Your task to perform on an android device: What is the news today? Image 0: 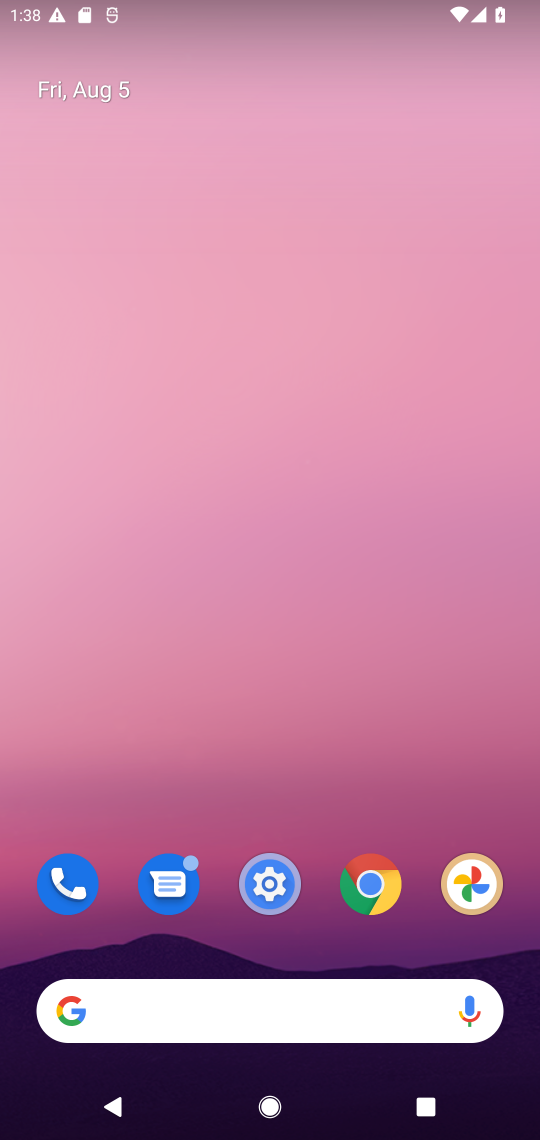
Step 0: drag from (527, 935) to (333, 0)
Your task to perform on an android device: What is the news today? Image 1: 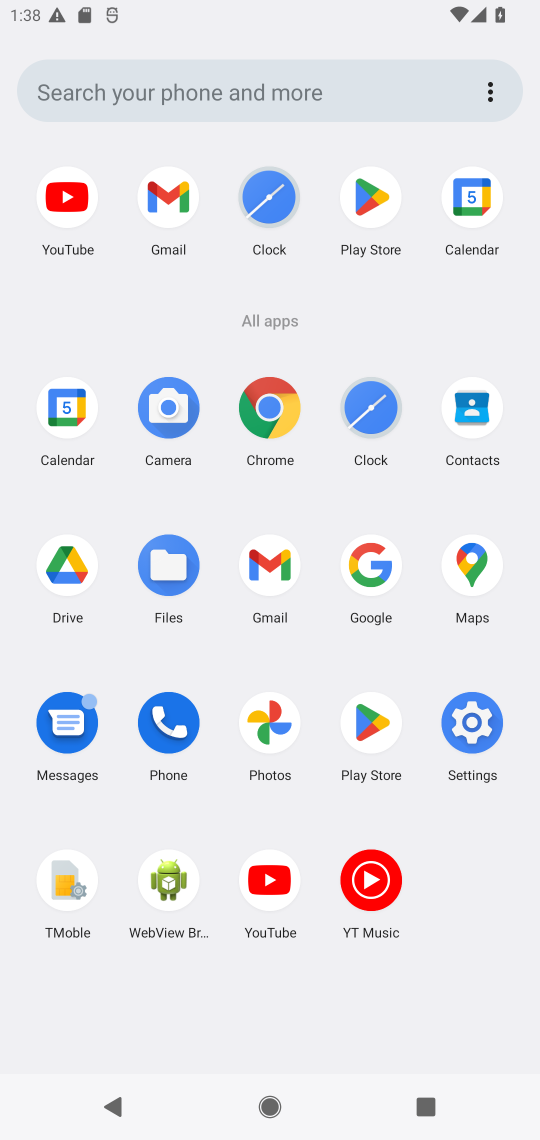
Step 1: click (381, 568)
Your task to perform on an android device: What is the news today? Image 2: 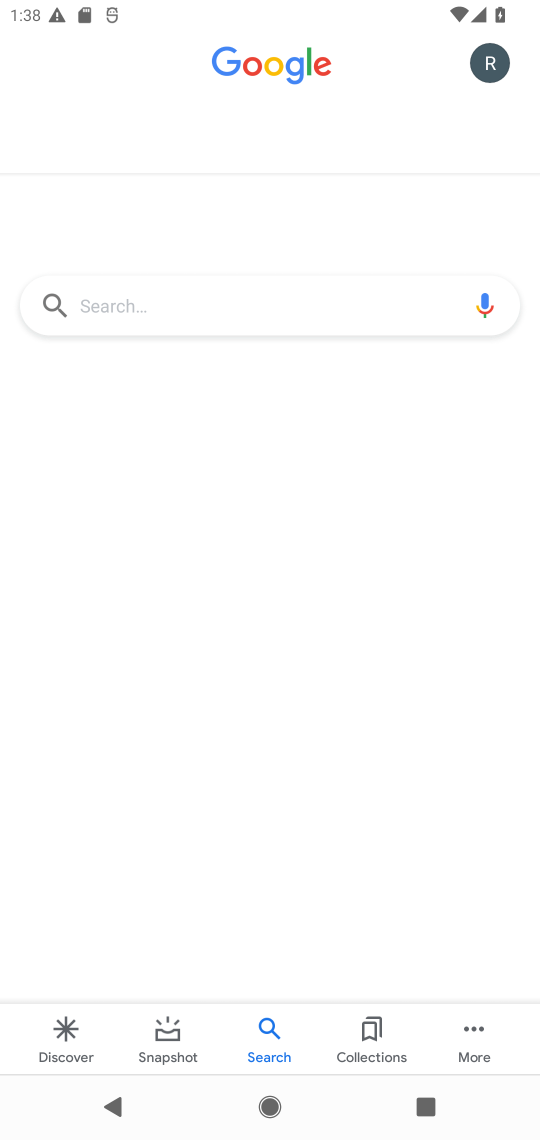
Step 2: click (219, 294)
Your task to perform on an android device: What is the news today? Image 3: 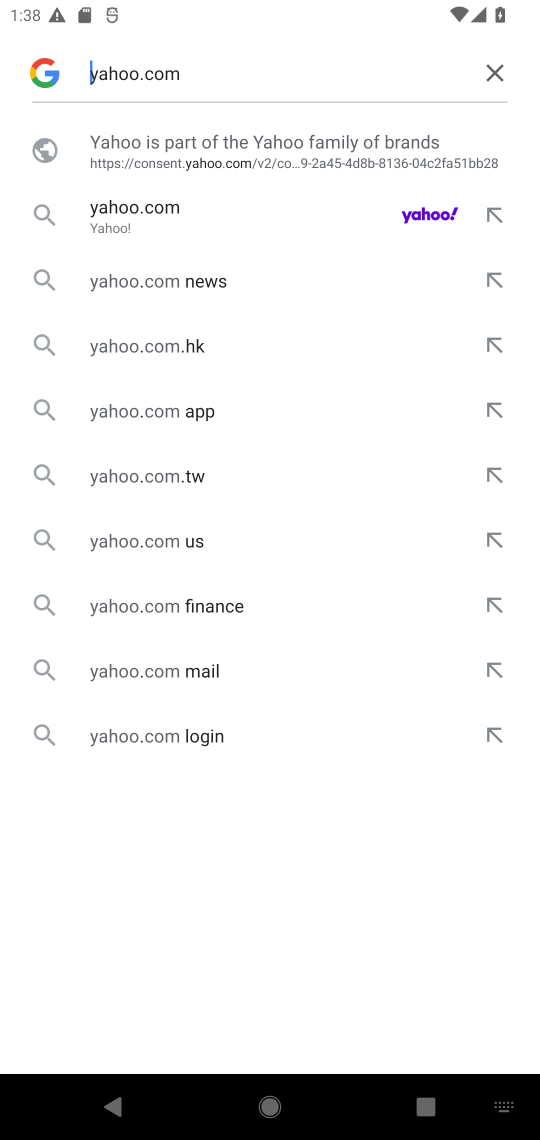
Step 3: click (488, 66)
Your task to perform on an android device: What is the news today? Image 4: 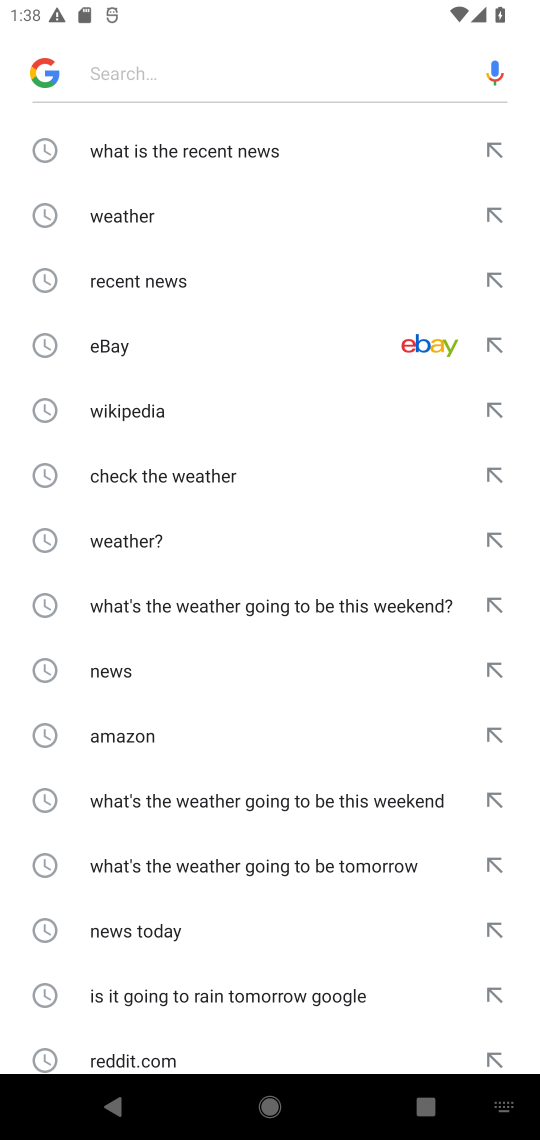
Step 4: drag from (256, 865) to (192, 235)
Your task to perform on an android device: What is the news today? Image 5: 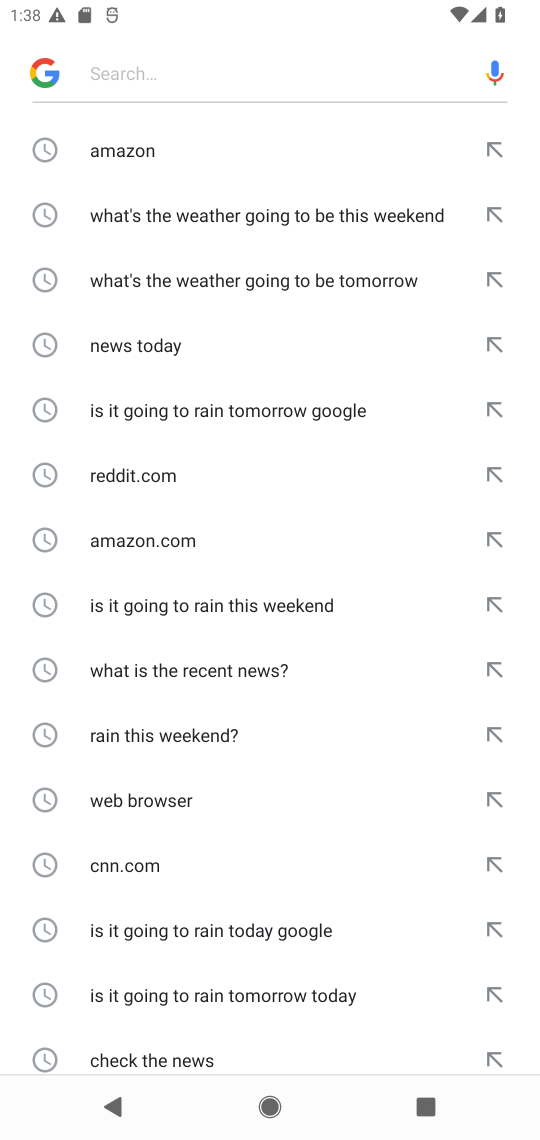
Step 5: drag from (213, 949) to (279, 330)
Your task to perform on an android device: What is the news today? Image 6: 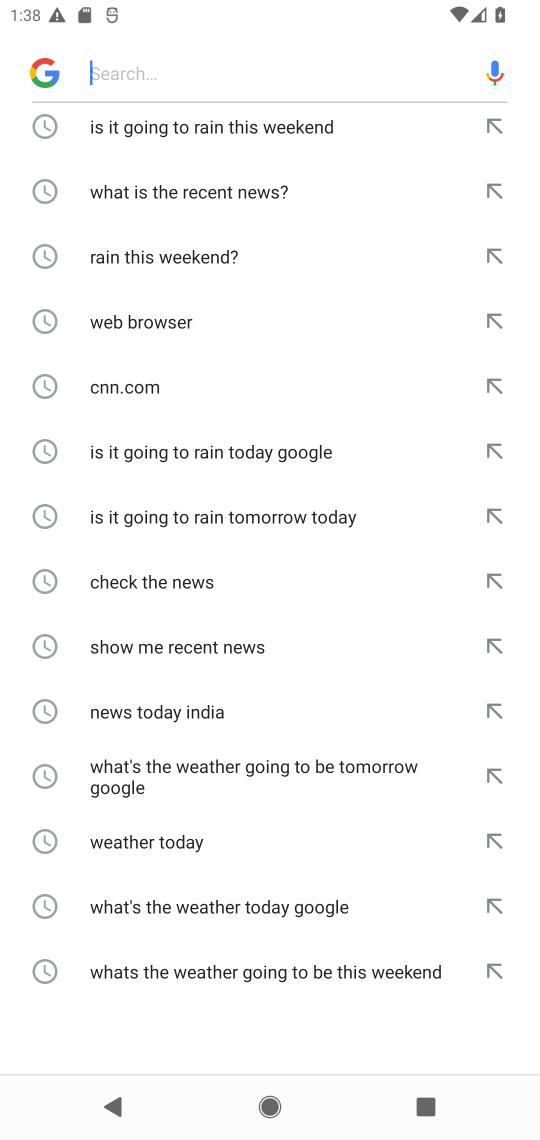
Step 6: type "What is the news today?"
Your task to perform on an android device: What is the news today? Image 7: 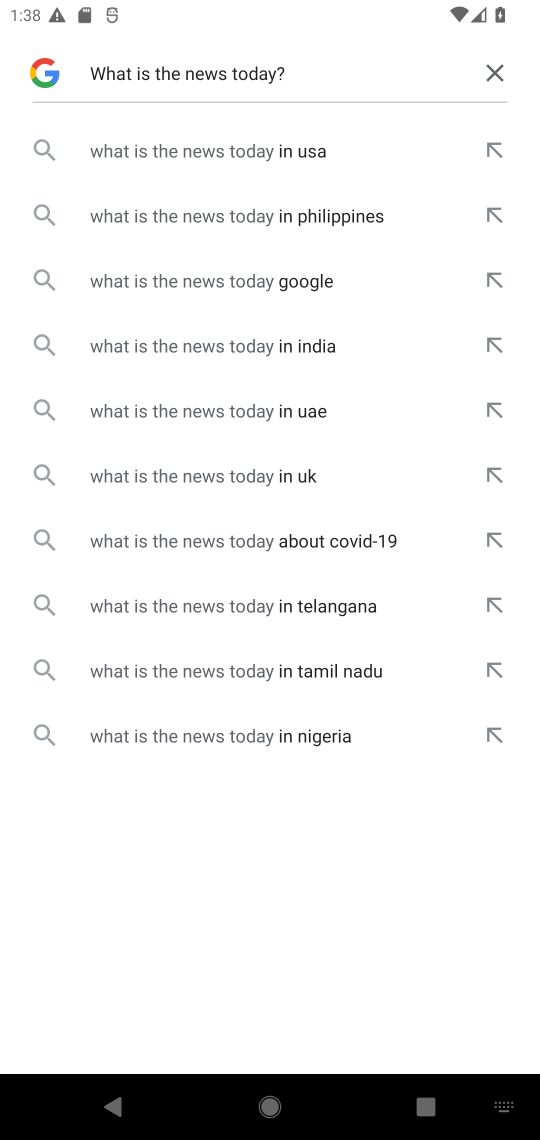
Step 7: task complete